Your task to perform on an android device: allow cookies in the chrome app Image 0: 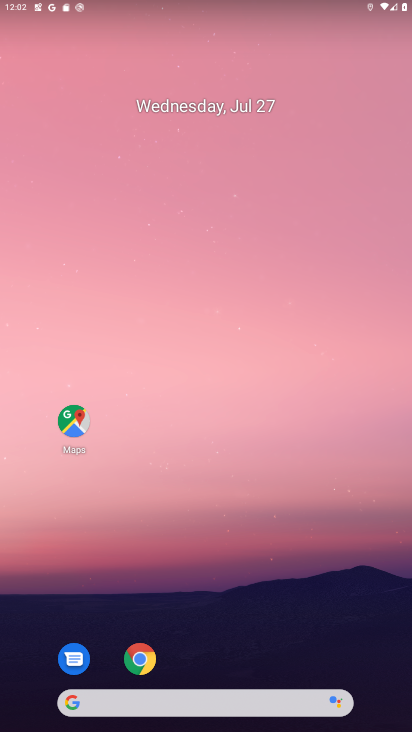
Step 0: drag from (277, 678) to (218, 7)
Your task to perform on an android device: allow cookies in the chrome app Image 1: 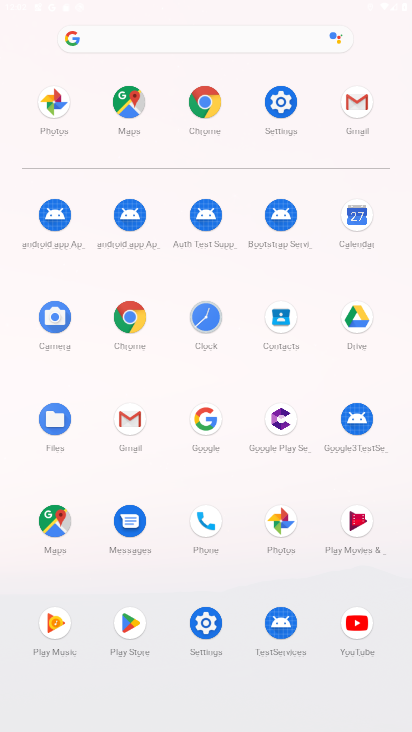
Step 1: click (132, 312)
Your task to perform on an android device: allow cookies in the chrome app Image 2: 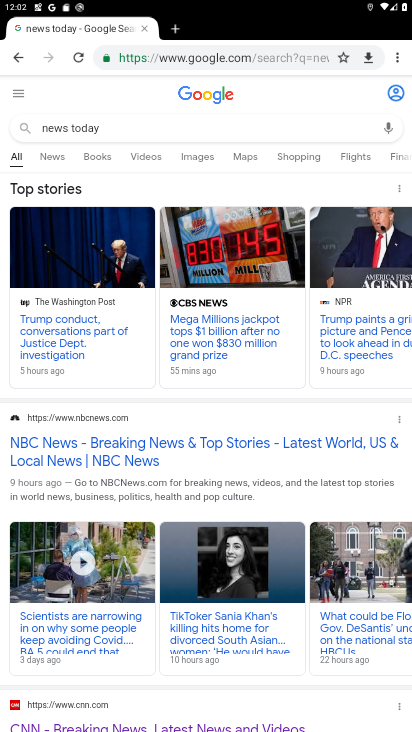
Step 2: click (393, 57)
Your task to perform on an android device: allow cookies in the chrome app Image 3: 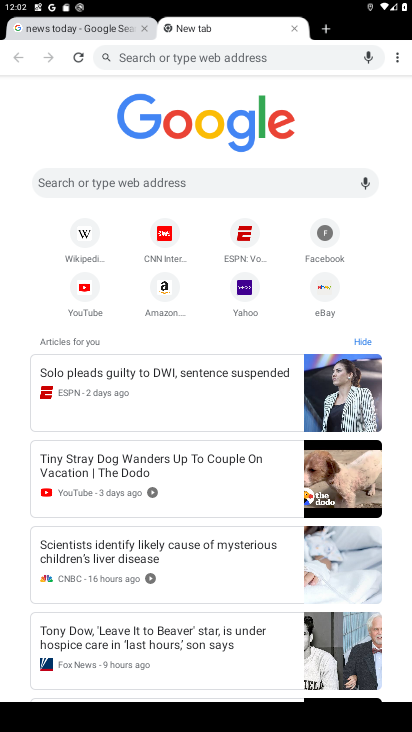
Step 3: click (392, 56)
Your task to perform on an android device: allow cookies in the chrome app Image 4: 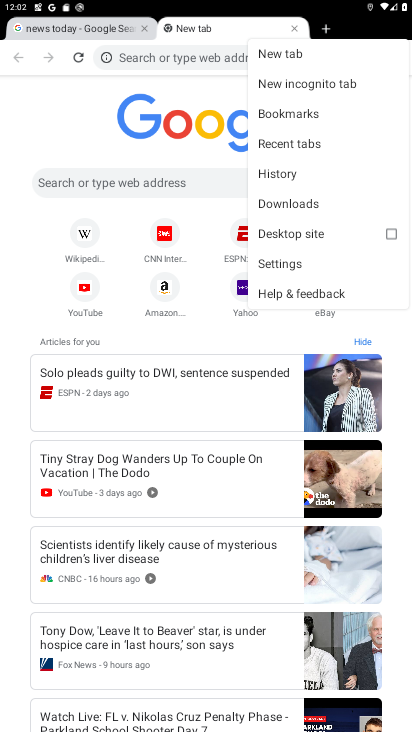
Step 4: click (308, 264)
Your task to perform on an android device: allow cookies in the chrome app Image 5: 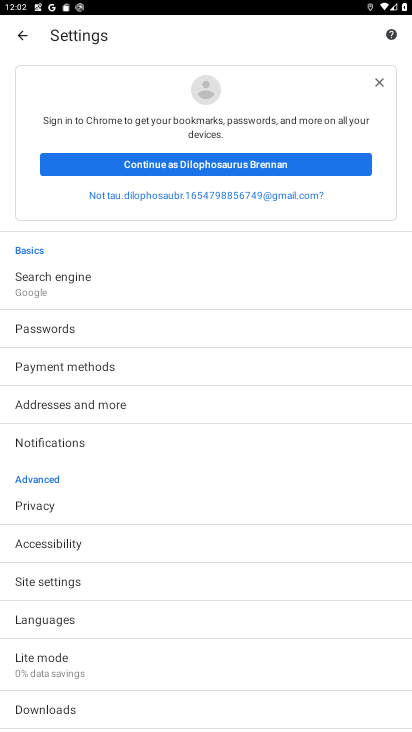
Step 5: drag from (258, 662) to (245, 317)
Your task to perform on an android device: allow cookies in the chrome app Image 6: 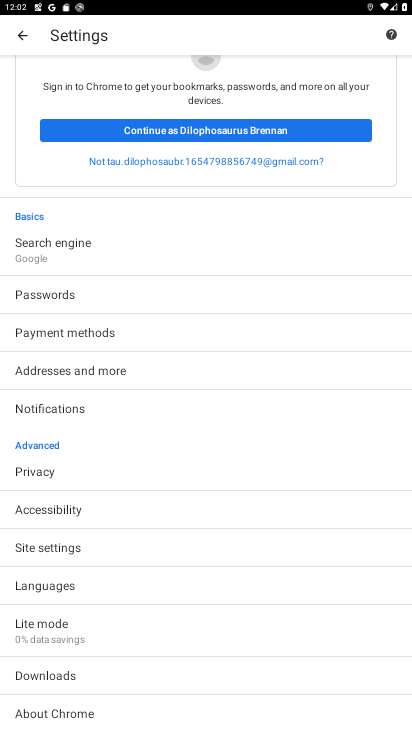
Step 6: click (57, 554)
Your task to perform on an android device: allow cookies in the chrome app Image 7: 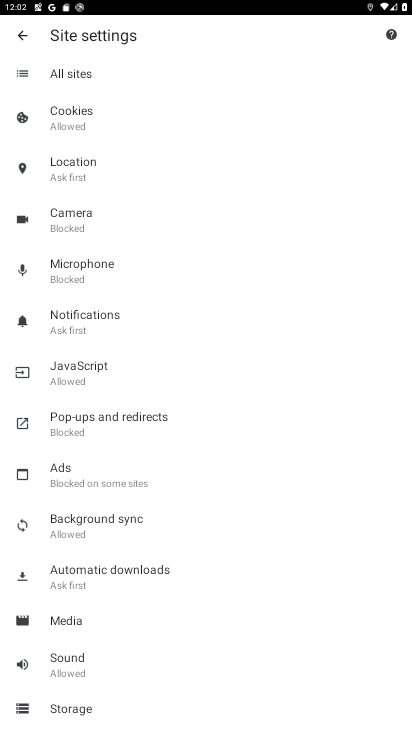
Step 7: click (68, 126)
Your task to perform on an android device: allow cookies in the chrome app Image 8: 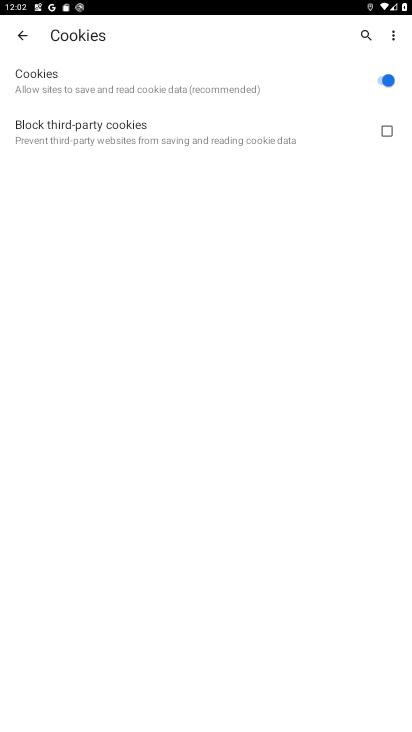
Step 8: task complete